Your task to perform on an android device: Open Google Maps Image 0: 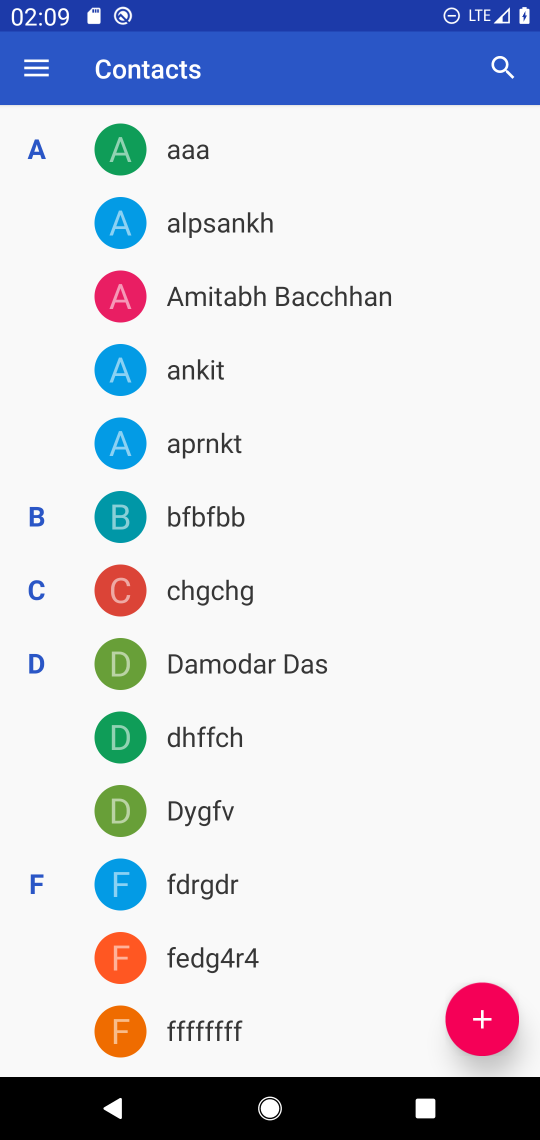
Step 0: press home button
Your task to perform on an android device: Open Google Maps Image 1: 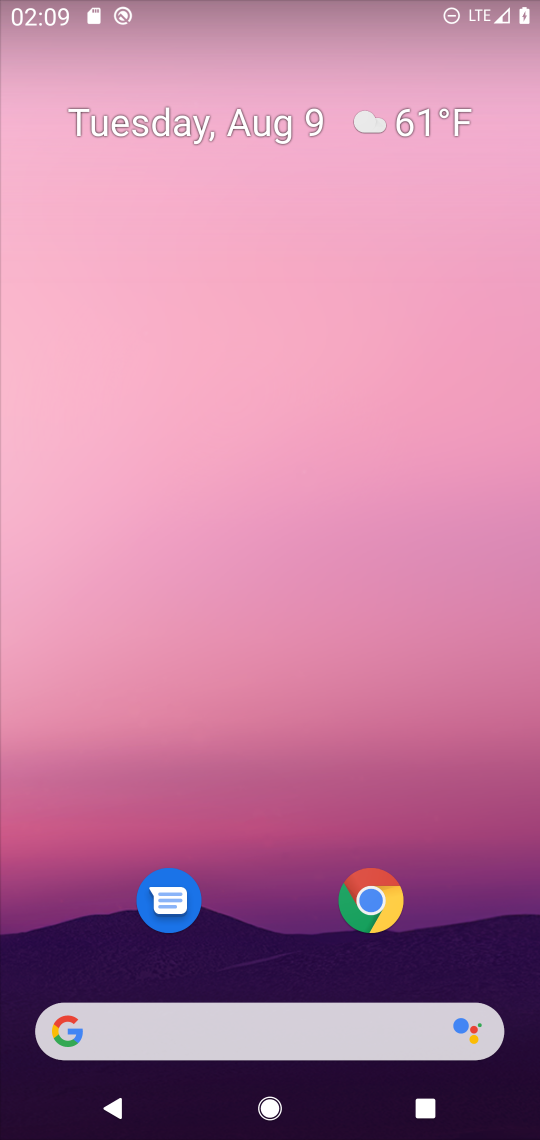
Step 1: drag from (286, 955) to (301, 183)
Your task to perform on an android device: Open Google Maps Image 2: 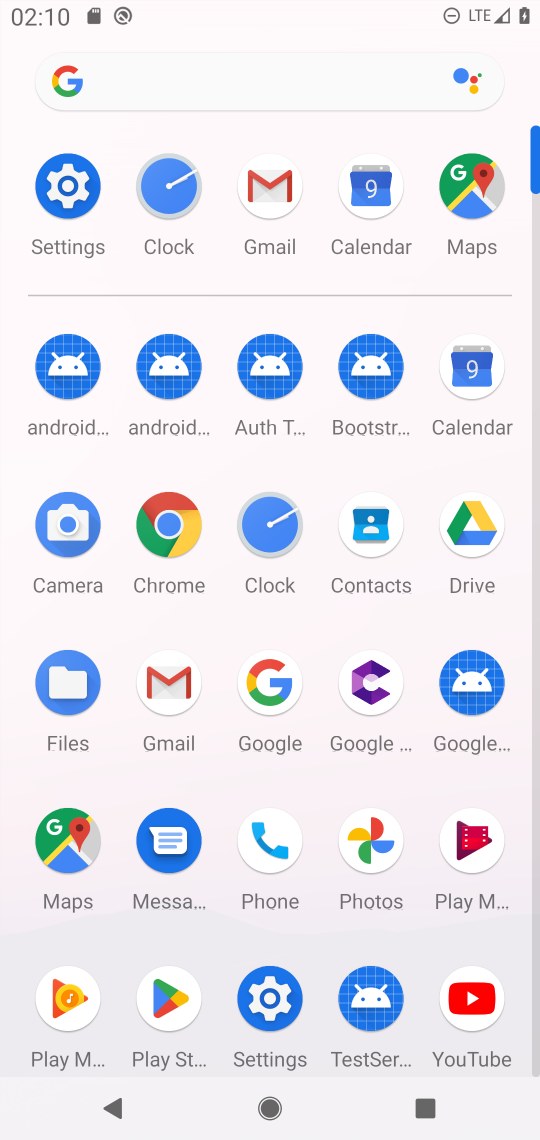
Step 2: click (72, 836)
Your task to perform on an android device: Open Google Maps Image 3: 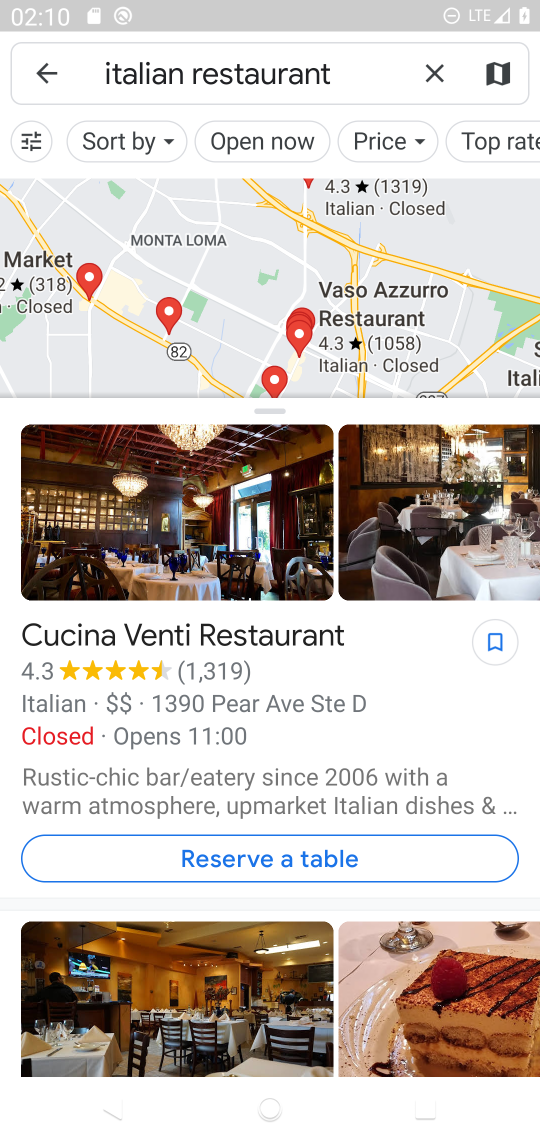
Step 3: task complete